Your task to perform on an android device: Go to battery settings Image 0: 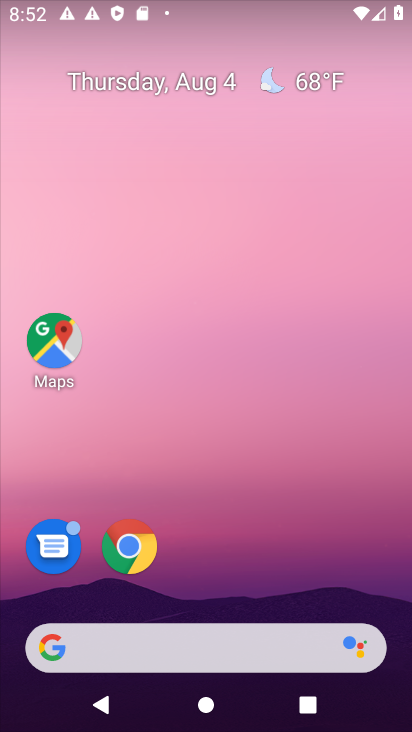
Step 0: press home button
Your task to perform on an android device: Go to battery settings Image 1: 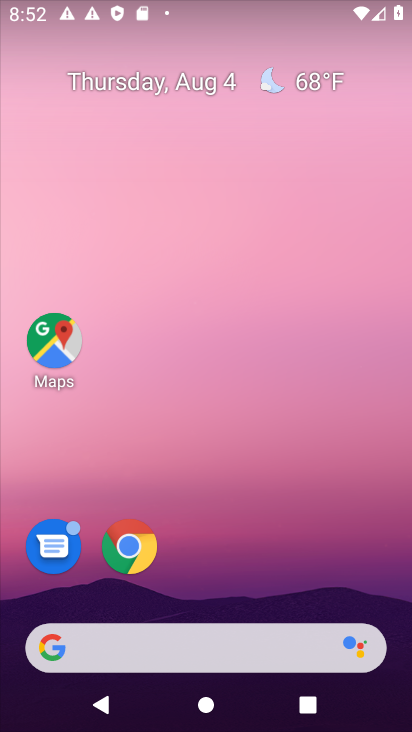
Step 1: drag from (241, 617) to (285, 0)
Your task to perform on an android device: Go to battery settings Image 2: 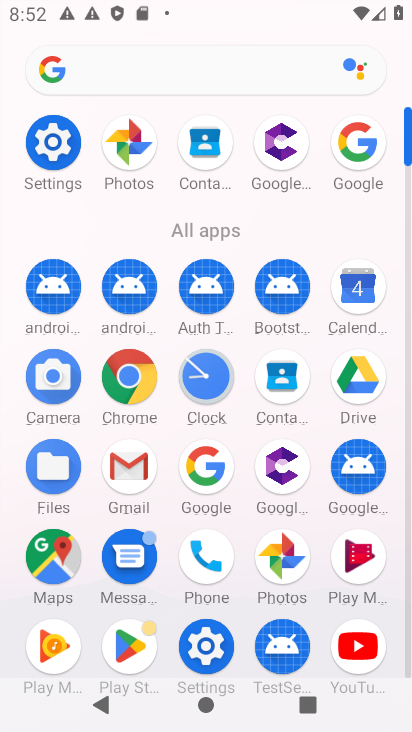
Step 2: click (54, 144)
Your task to perform on an android device: Go to battery settings Image 3: 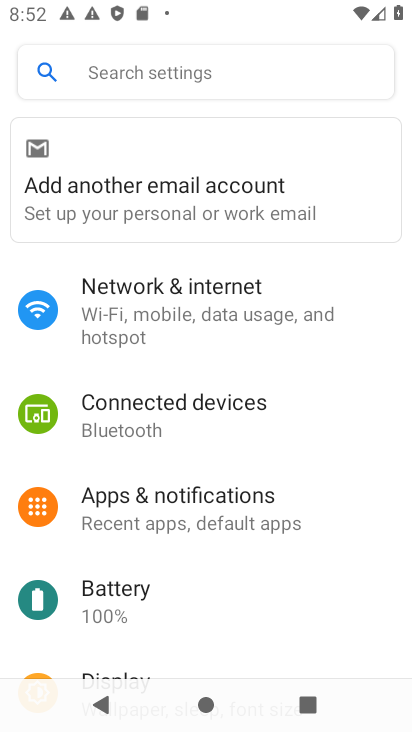
Step 3: click (110, 588)
Your task to perform on an android device: Go to battery settings Image 4: 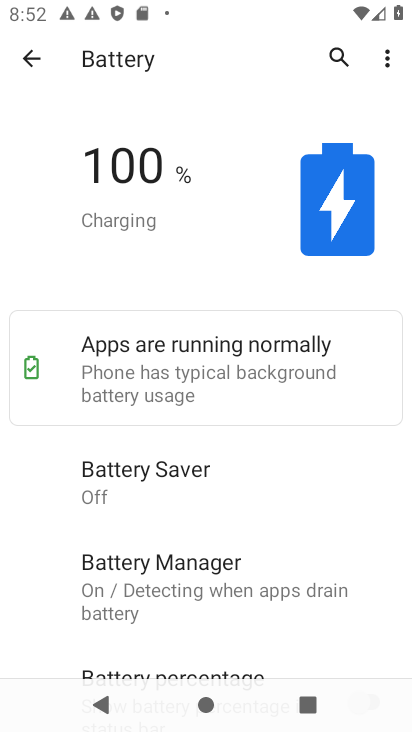
Step 4: task complete